Your task to perform on an android device: Search for "jbl charge 4" on amazon.com, select the first entry, and add it to the cart. Image 0: 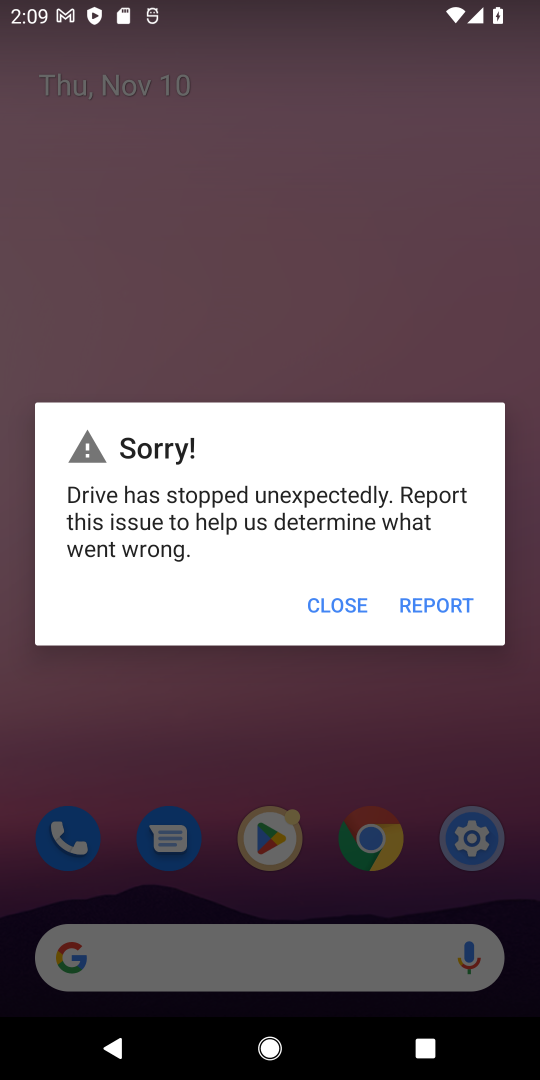
Step 0: click (332, 601)
Your task to perform on an android device: Search for "jbl charge 4" on amazon.com, select the first entry, and add it to the cart. Image 1: 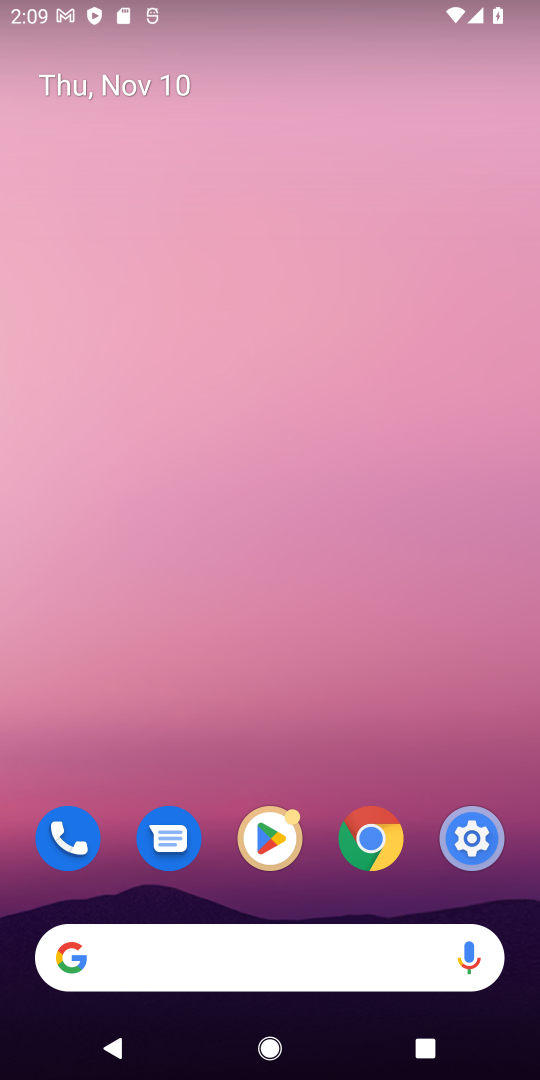
Step 1: click (376, 825)
Your task to perform on an android device: Search for "jbl charge 4" on amazon.com, select the first entry, and add it to the cart. Image 2: 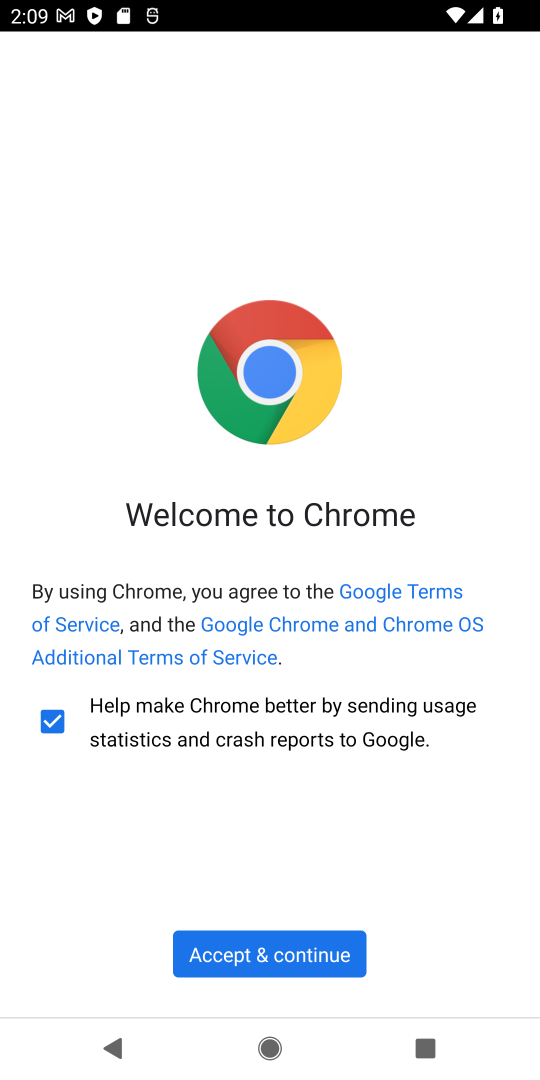
Step 2: click (294, 942)
Your task to perform on an android device: Search for "jbl charge 4" on amazon.com, select the first entry, and add it to the cart. Image 3: 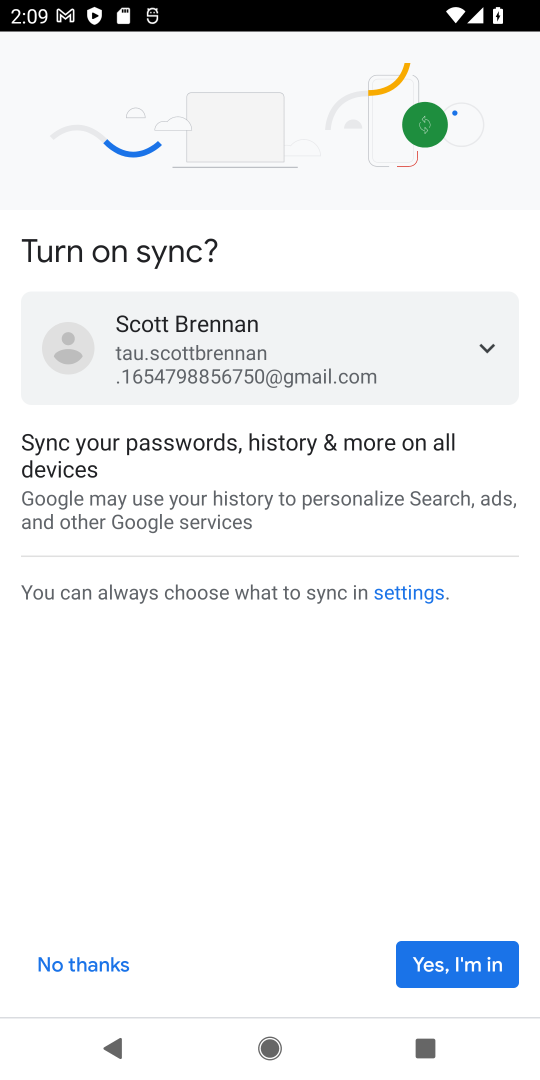
Step 3: click (434, 973)
Your task to perform on an android device: Search for "jbl charge 4" on amazon.com, select the first entry, and add it to the cart. Image 4: 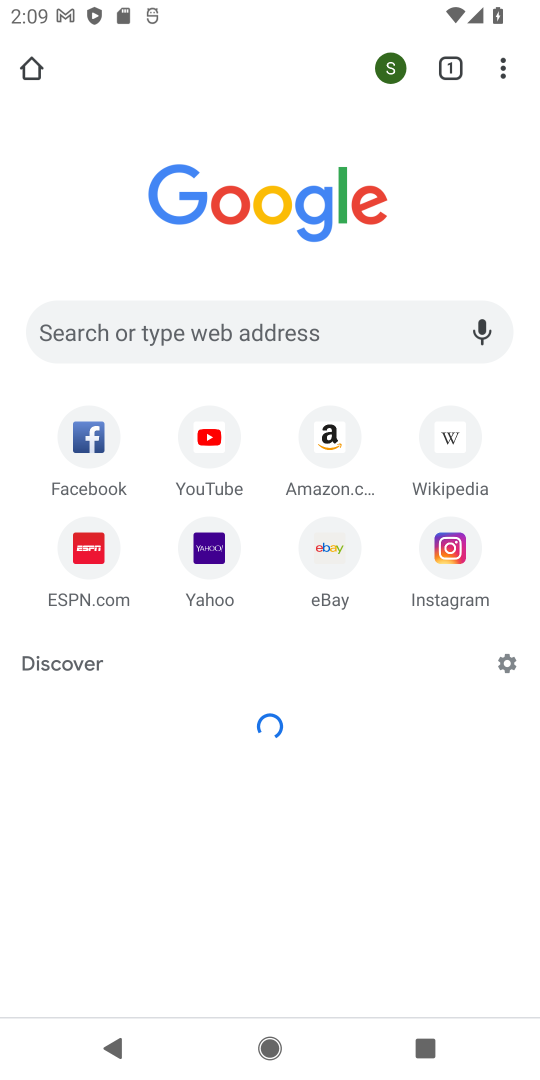
Step 4: click (330, 433)
Your task to perform on an android device: Search for "jbl charge 4" on amazon.com, select the first entry, and add it to the cart. Image 5: 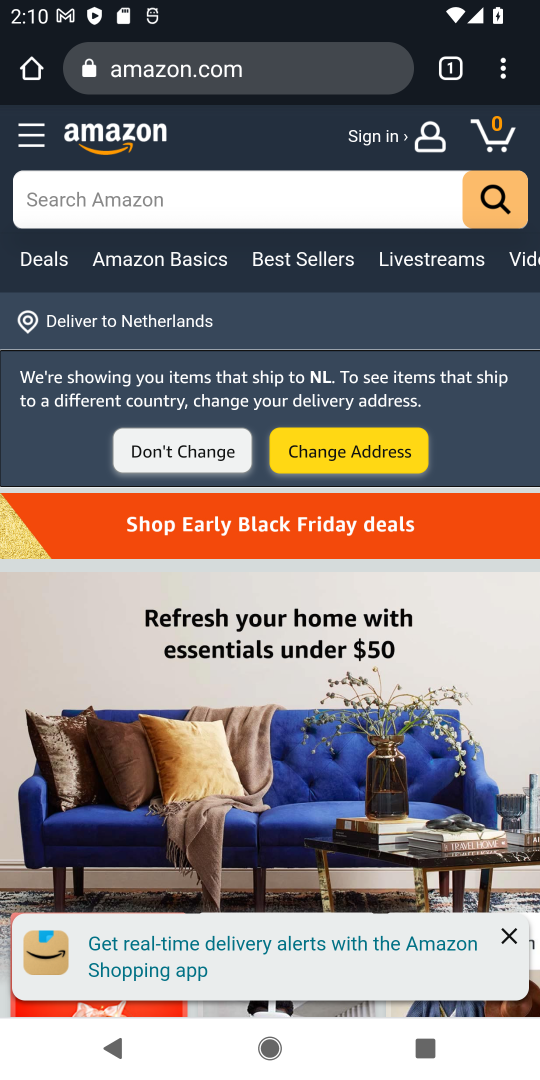
Step 5: click (167, 173)
Your task to perform on an android device: Search for "jbl charge 4" on amazon.com, select the first entry, and add it to the cart. Image 6: 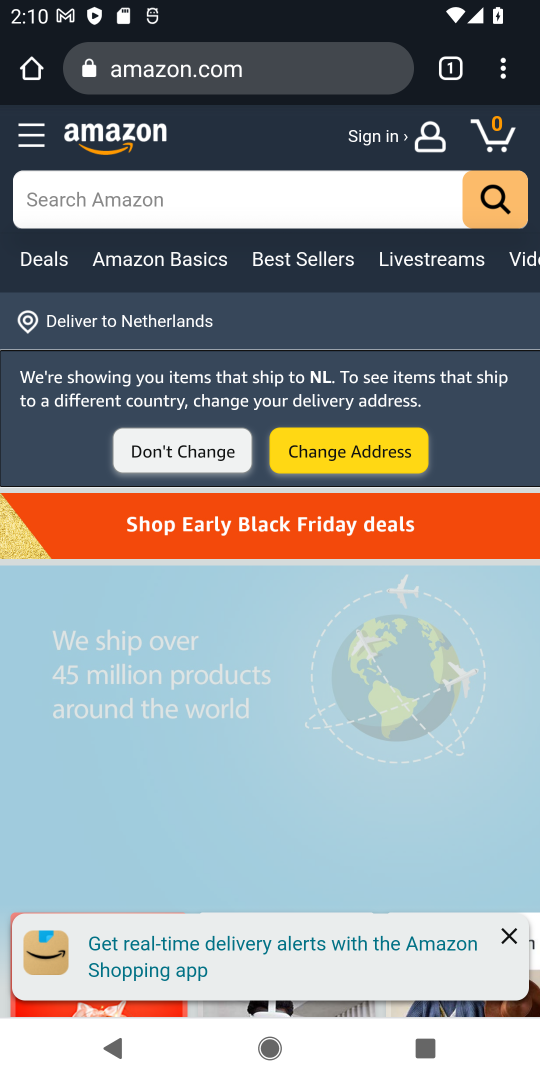
Step 6: click (165, 203)
Your task to perform on an android device: Search for "jbl charge 4" on amazon.com, select the first entry, and add it to the cart. Image 7: 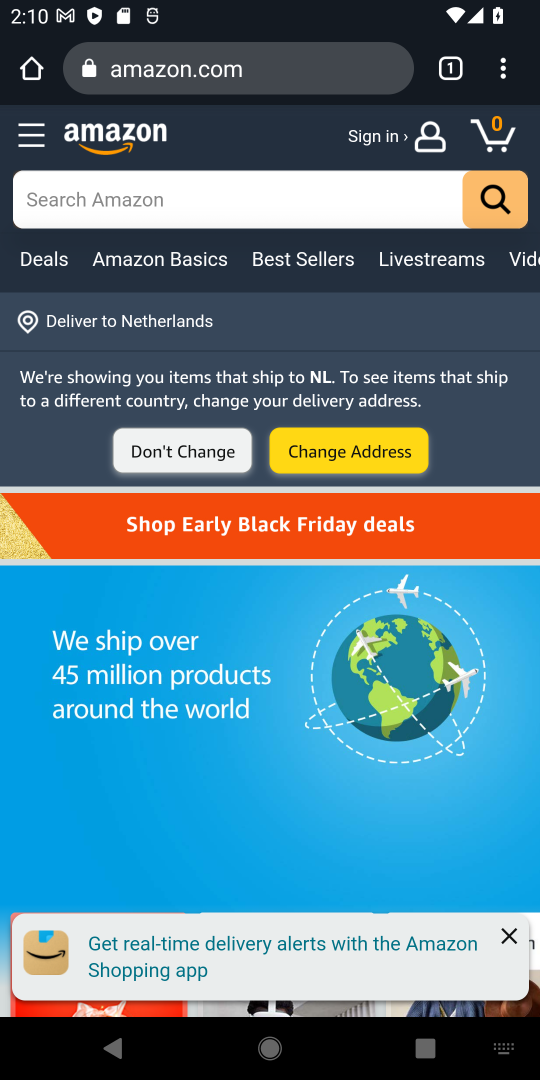
Step 7: type "jbl charge 4"
Your task to perform on an android device: Search for "jbl charge 4" on amazon.com, select the first entry, and add it to the cart. Image 8: 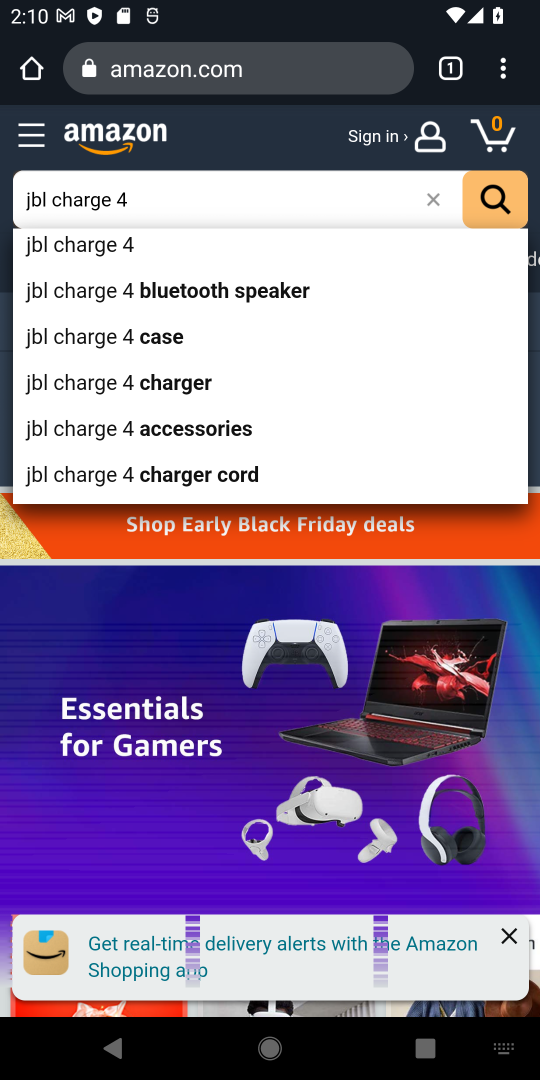
Step 8: click (100, 238)
Your task to perform on an android device: Search for "jbl charge 4" on amazon.com, select the first entry, and add it to the cart. Image 9: 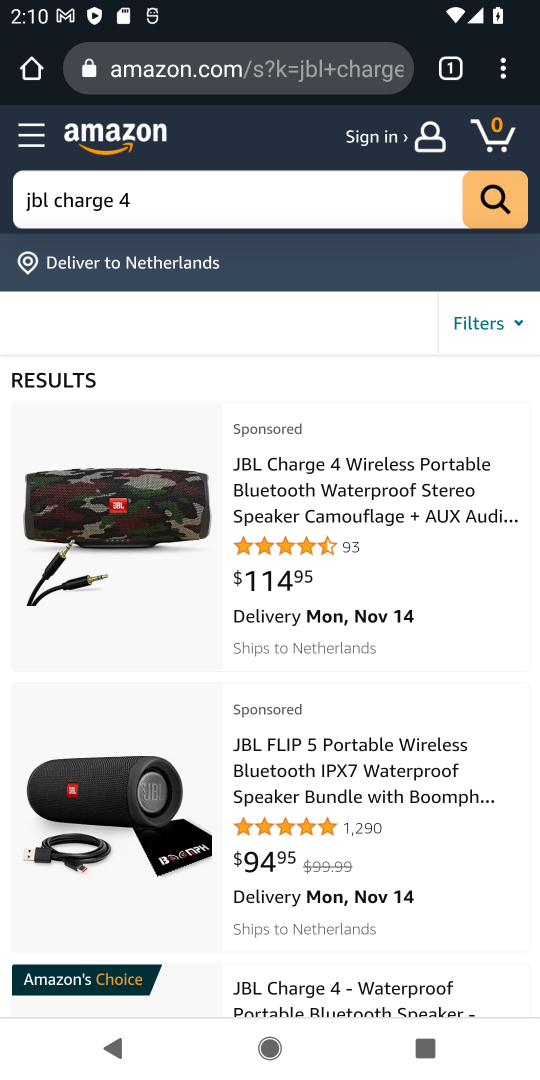
Step 9: click (411, 503)
Your task to perform on an android device: Search for "jbl charge 4" on amazon.com, select the first entry, and add it to the cart. Image 10: 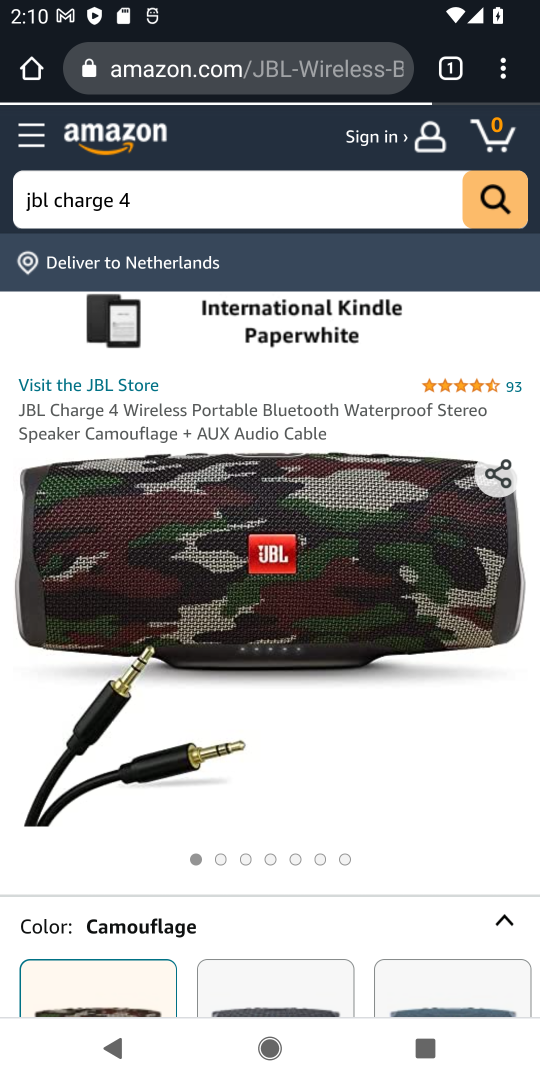
Step 10: drag from (406, 929) to (442, 579)
Your task to perform on an android device: Search for "jbl charge 4" on amazon.com, select the first entry, and add it to the cart. Image 11: 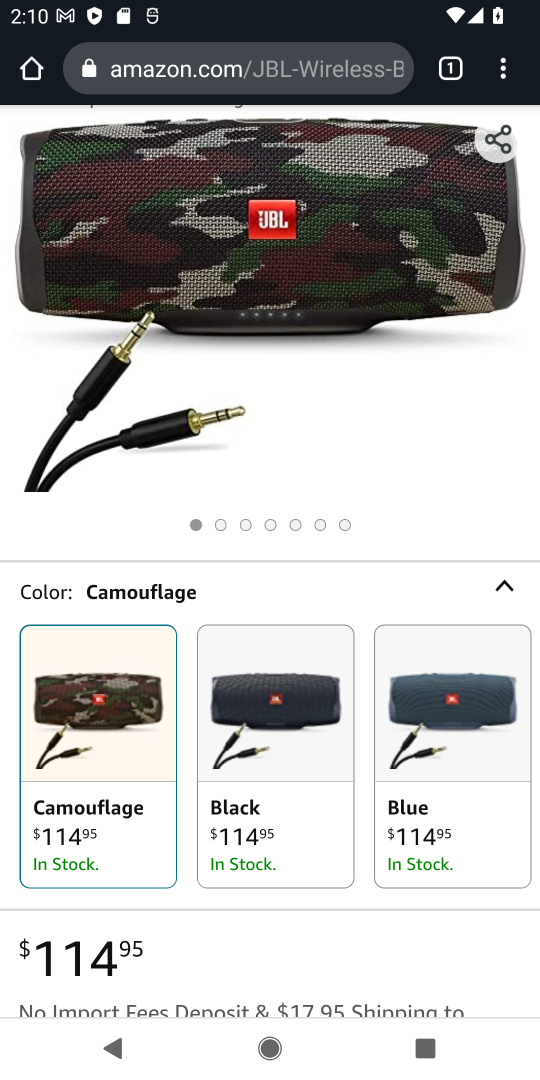
Step 11: drag from (397, 935) to (415, 615)
Your task to perform on an android device: Search for "jbl charge 4" on amazon.com, select the first entry, and add it to the cart. Image 12: 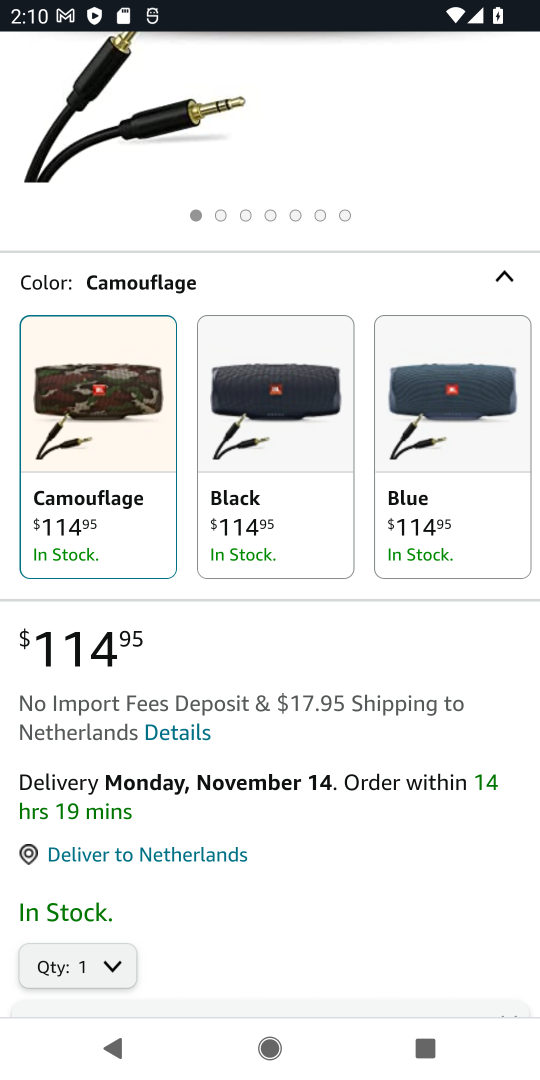
Step 12: drag from (332, 887) to (379, 545)
Your task to perform on an android device: Search for "jbl charge 4" on amazon.com, select the first entry, and add it to the cart. Image 13: 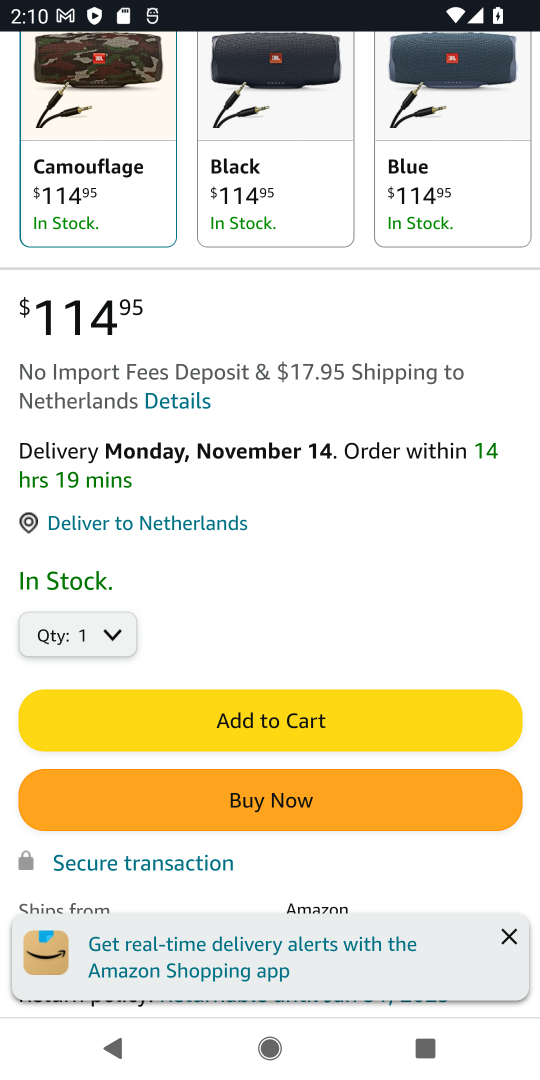
Step 13: click (299, 715)
Your task to perform on an android device: Search for "jbl charge 4" on amazon.com, select the first entry, and add it to the cart. Image 14: 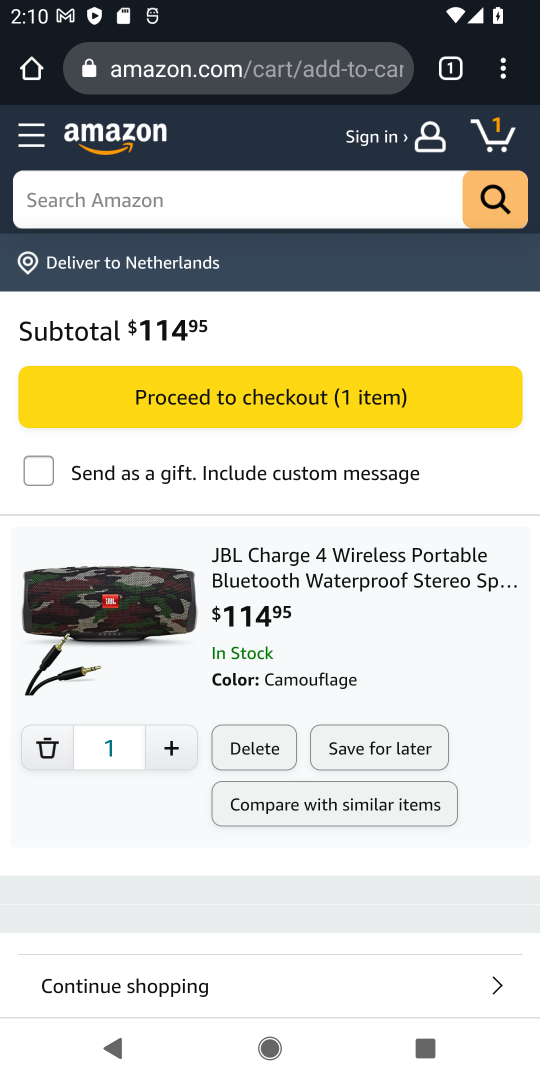
Step 14: task complete